Your task to perform on an android device: turn on the 12-hour format for clock Image 0: 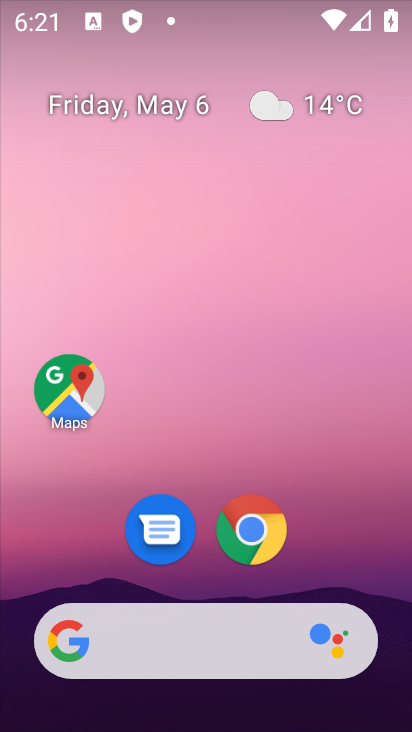
Step 0: drag from (332, 485) to (229, 31)
Your task to perform on an android device: turn on the 12-hour format for clock Image 1: 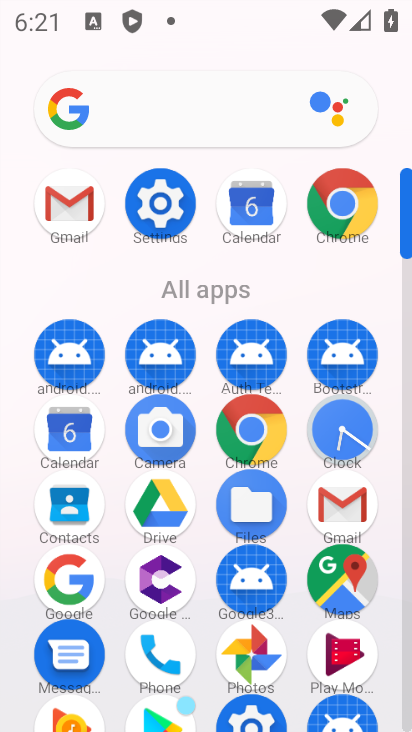
Step 1: click (345, 435)
Your task to perform on an android device: turn on the 12-hour format for clock Image 2: 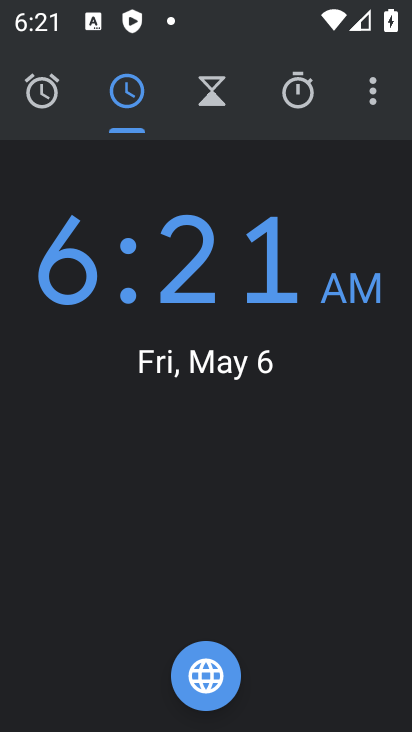
Step 2: click (369, 106)
Your task to perform on an android device: turn on the 12-hour format for clock Image 3: 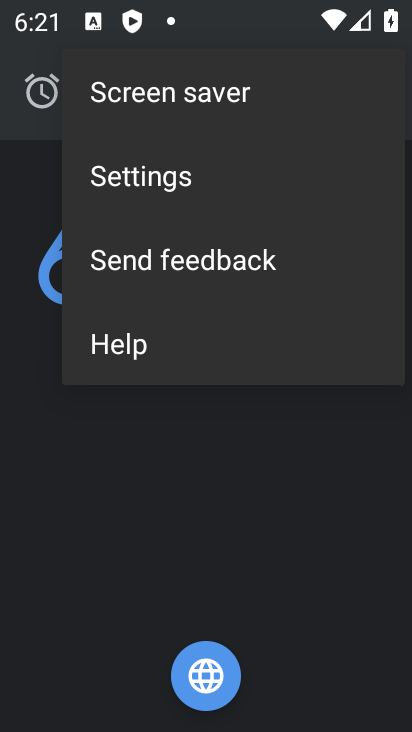
Step 3: click (183, 184)
Your task to perform on an android device: turn on the 12-hour format for clock Image 4: 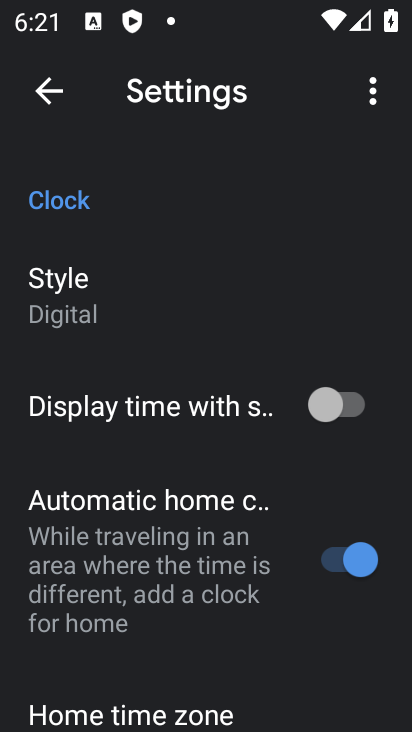
Step 4: drag from (233, 644) to (273, 170)
Your task to perform on an android device: turn on the 12-hour format for clock Image 5: 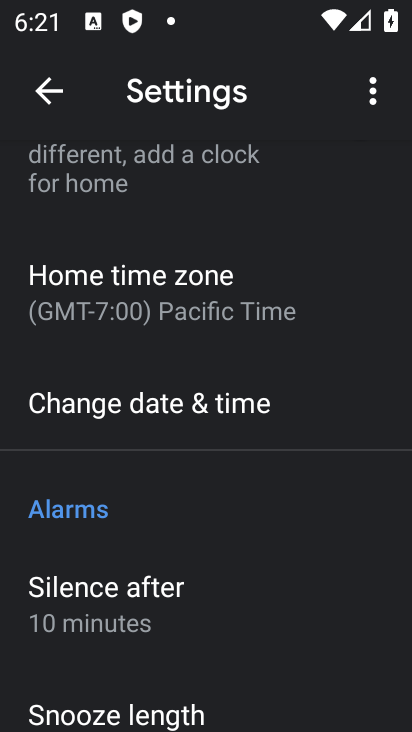
Step 5: click (217, 412)
Your task to perform on an android device: turn on the 12-hour format for clock Image 6: 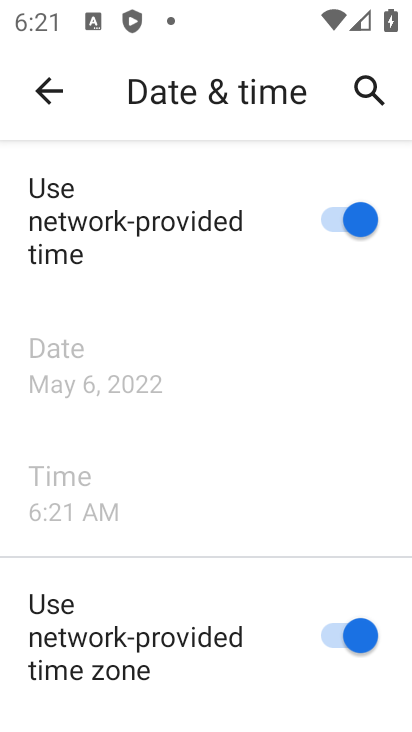
Step 6: task complete